Your task to perform on an android device: Turn off the flashlight Image 0: 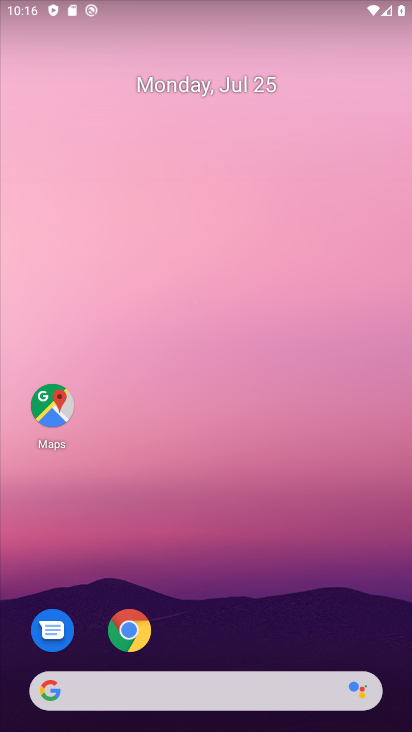
Step 0: drag from (252, 653) to (221, 177)
Your task to perform on an android device: Turn off the flashlight Image 1: 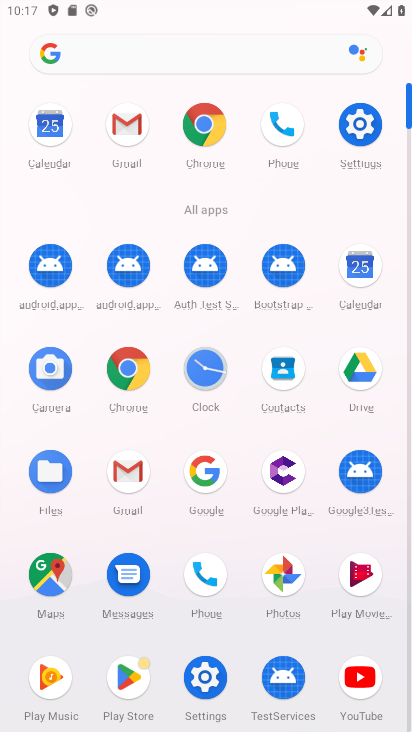
Step 1: click (352, 117)
Your task to perform on an android device: Turn off the flashlight Image 2: 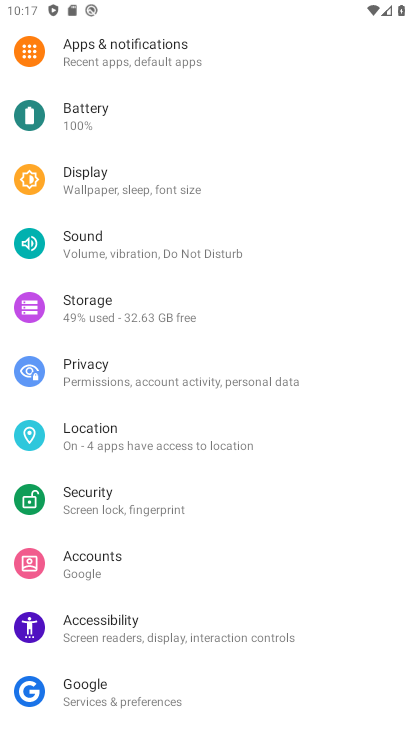
Step 2: click (110, 168)
Your task to perform on an android device: Turn off the flashlight Image 3: 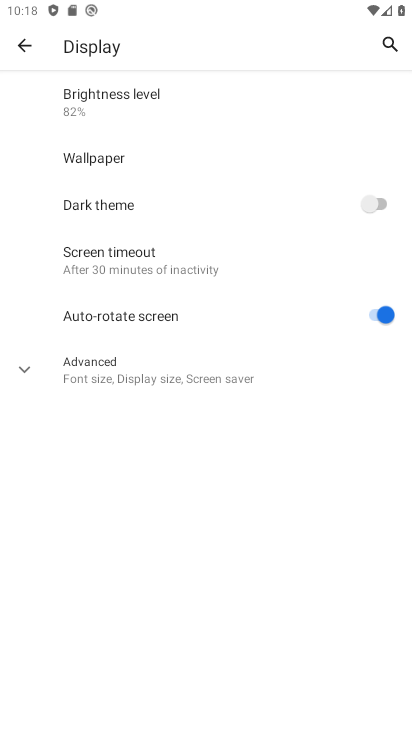
Step 3: click (117, 250)
Your task to perform on an android device: Turn off the flashlight Image 4: 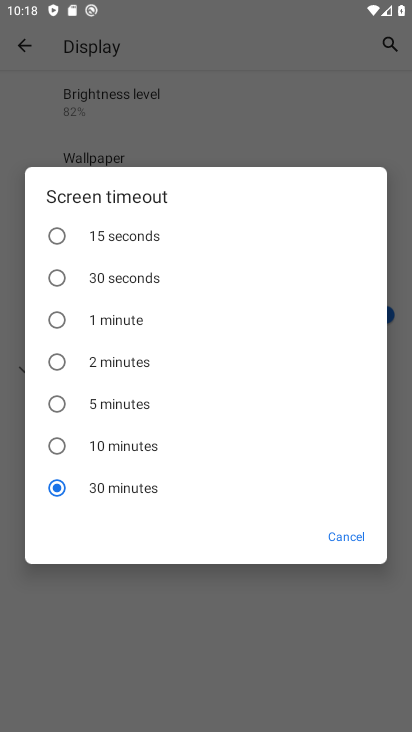
Step 4: task complete